Your task to perform on an android device: search for starred emails in the gmail app Image 0: 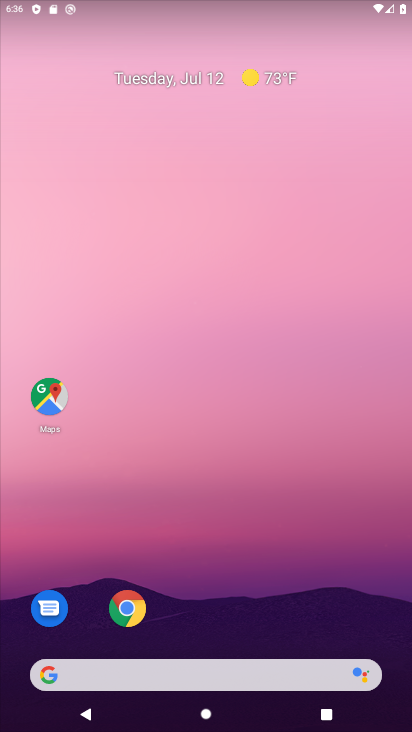
Step 0: drag from (202, 374) to (197, 59)
Your task to perform on an android device: search for starred emails in the gmail app Image 1: 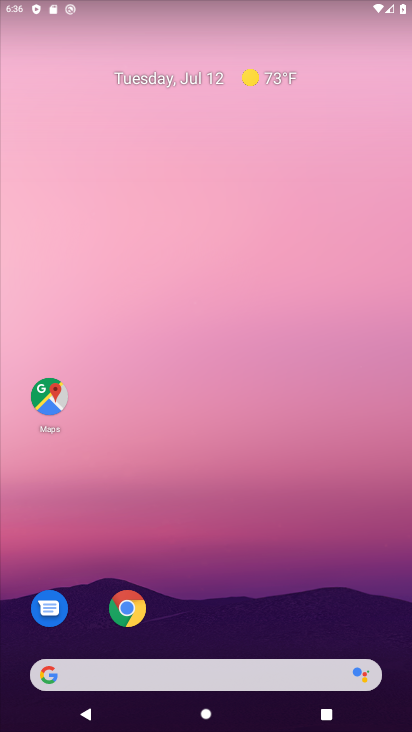
Step 1: drag from (178, 536) to (183, 276)
Your task to perform on an android device: search for starred emails in the gmail app Image 2: 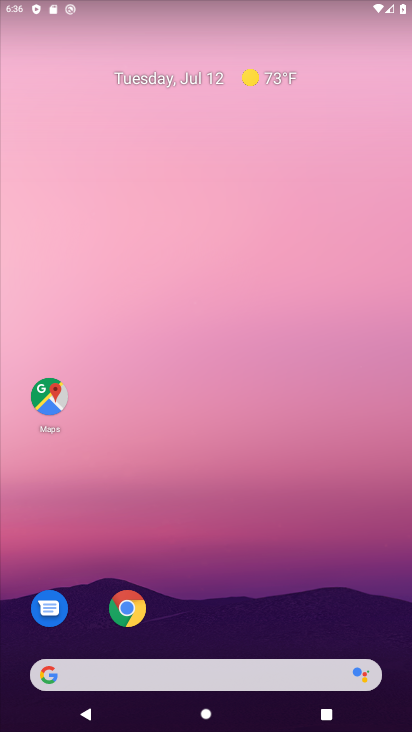
Step 2: drag from (182, 304) to (180, 25)
Your task to perform on an android device: search for starred emails in the gmail app Image 3: 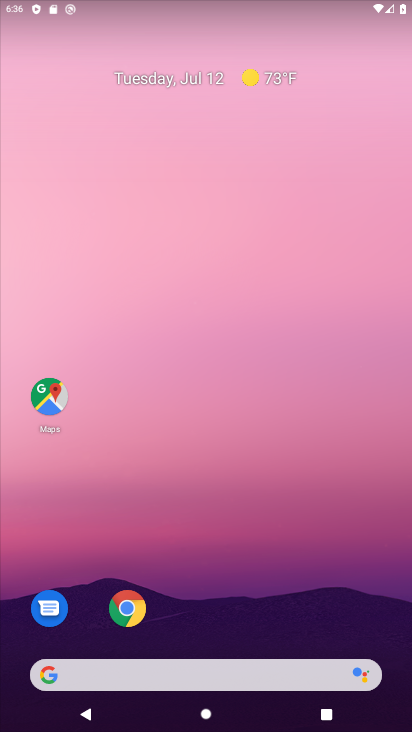
Step 3: drag from (202, 602) to (189, 107)
Your task to perform on an android device: search for starred emails in the gmail app Image 4: 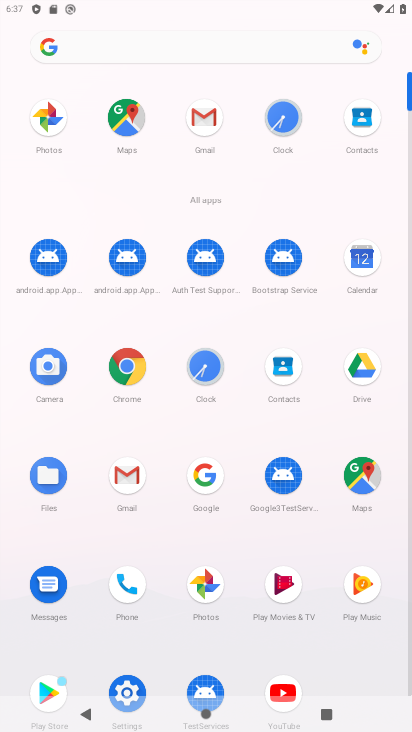
Step 4: click (210, 123)
Your task to perform on an android device: search for starred emails in the gmail app Image 5: 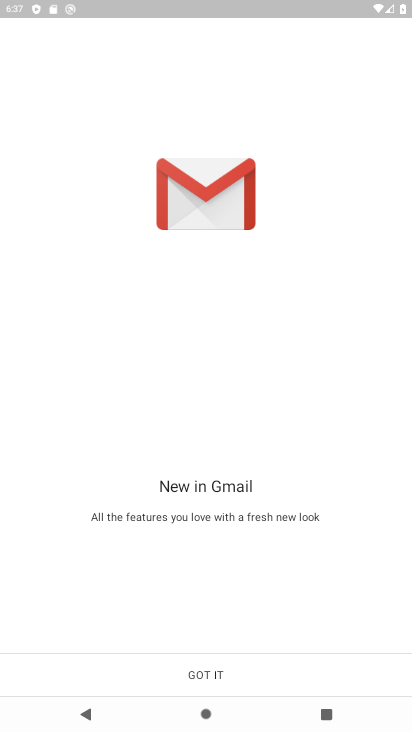
Step 5: click (189, 671)
Your task to perform on an android device: search for starred emails in the gmail app Image 6: 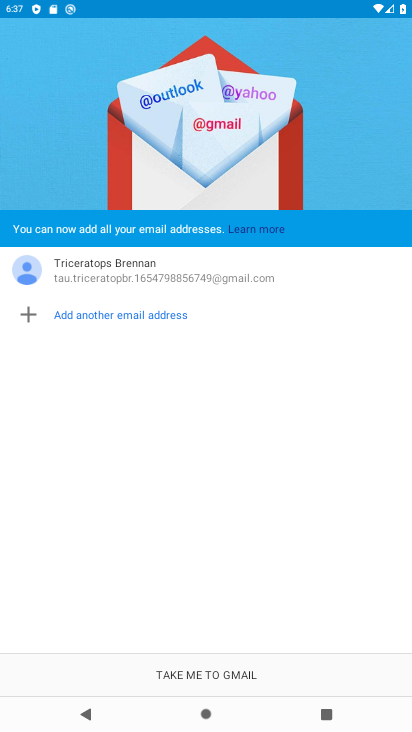
Step 6: click (185, 677)
Your task to perform on an android device: search for starred emails in the gmail app Image 7: 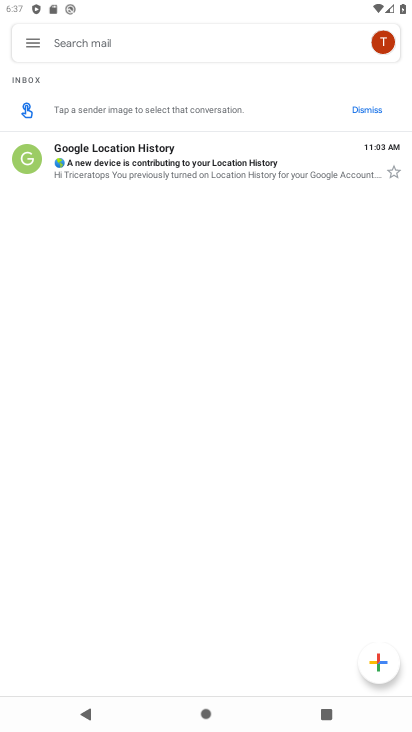
Step 7: click (32, 47)
Your task to perform on an android device: search for starred emails in the gmail app Image 8: 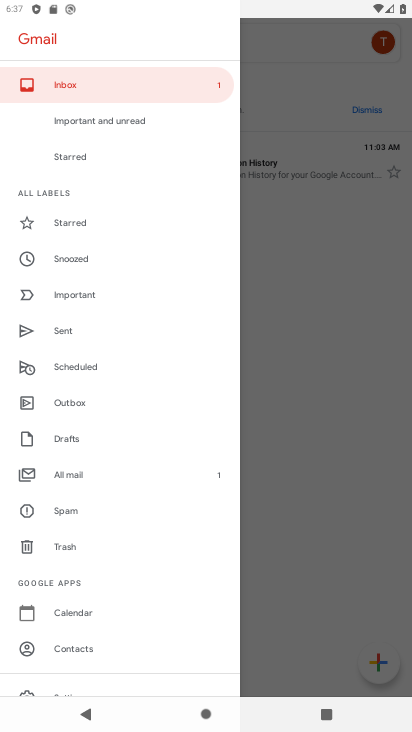
Step 8: click (71, 220)
Your task to perform on an android device: search for starred emails in the gmail app Image 9: 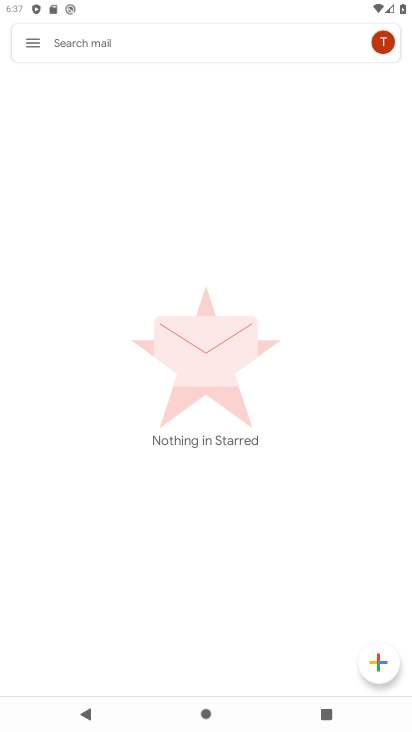
Step 9: task complete